Your task to perform on an android device: turn notification dots on Image 0: 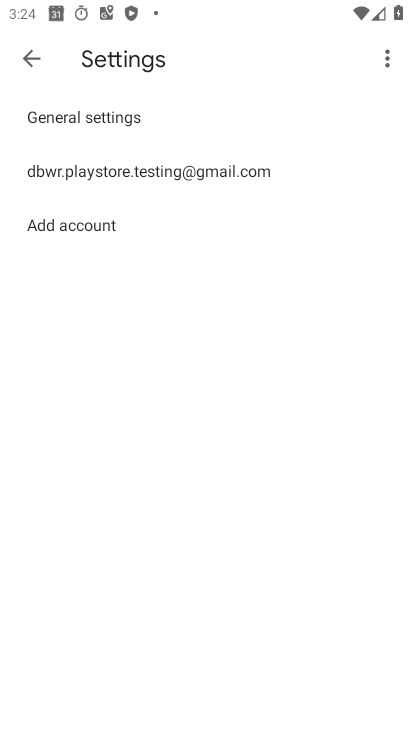
Step 0: press home button
Your task to perform on an android device: turn notification dots on Image 1: 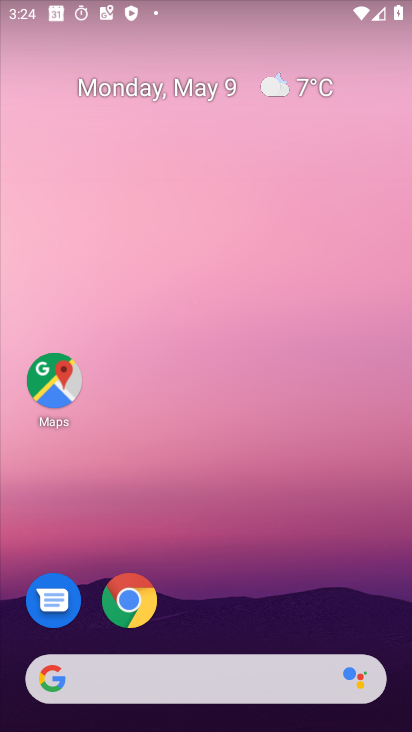
Step 1: drag from (322, 624) to (281, 157)
Your task to perform on an android device: turn notification dots on Image 2: 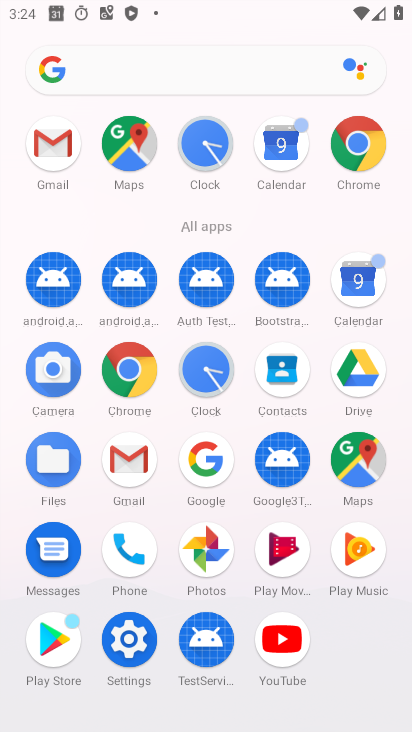
Step 2: click (138, 629)
Your task to perform on an android device: turn notification dots on Image 3: 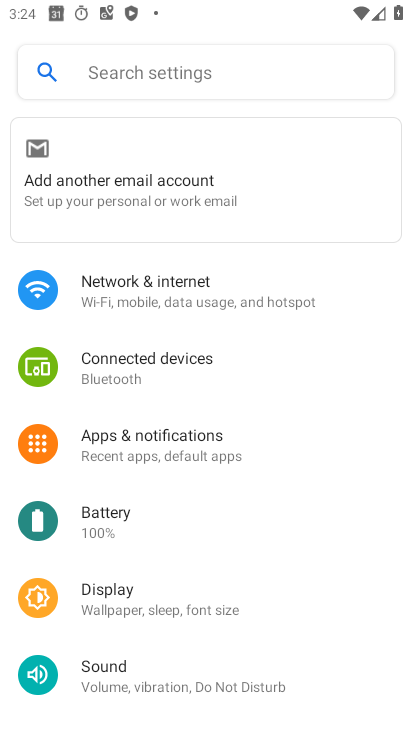
Step 3: drag from (197, 594) to (201, 209)
Your task to perform on an android device: turn notification dots on Image 4: 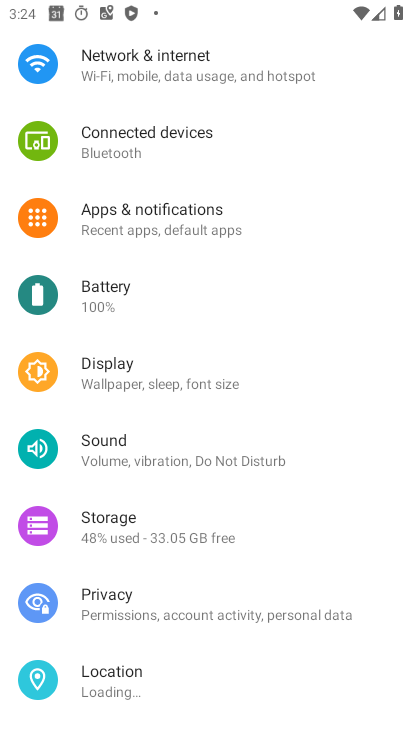
Step 4: click (198, 210)
Your task to perform on an android device: turn notification dots on Image 5: 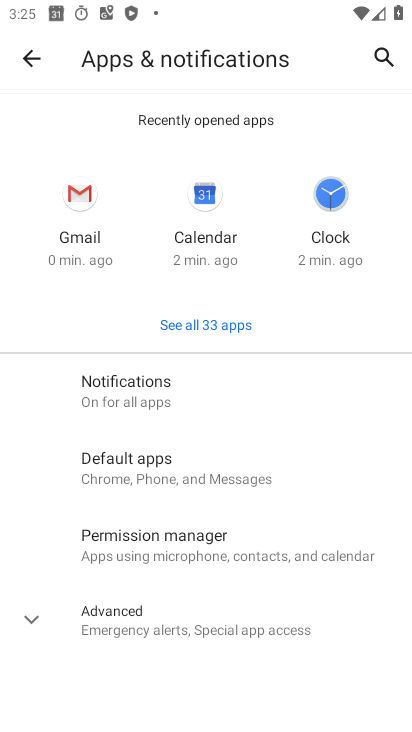
Step 5: drag from (241, 602) to (223, 199)
Your task to perform on an android device: turn notification dots on Image 6: 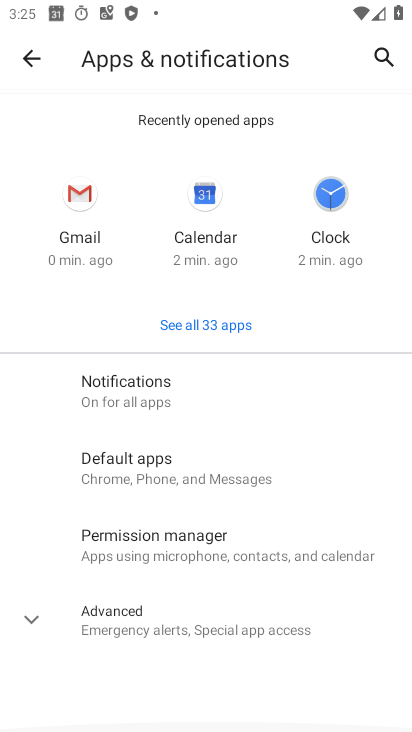
Step 6: click (167, 403)
Your task to perform on an android device: turn notification dots on Image 7: 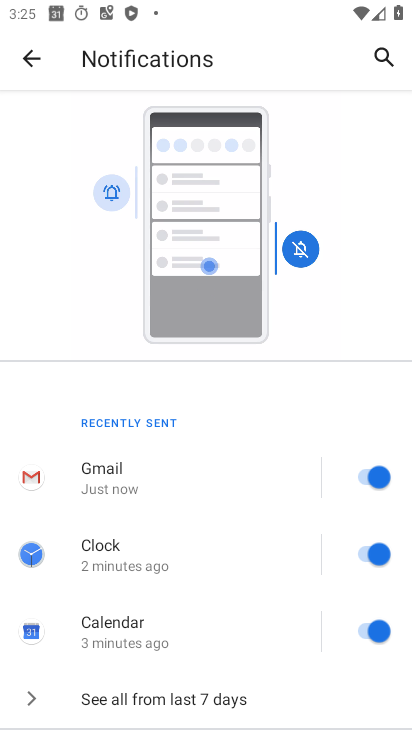
Step 7: drag from (216, 638) to (247, 128)
Your task to perform on an android device: turn notification dots on Image 8: 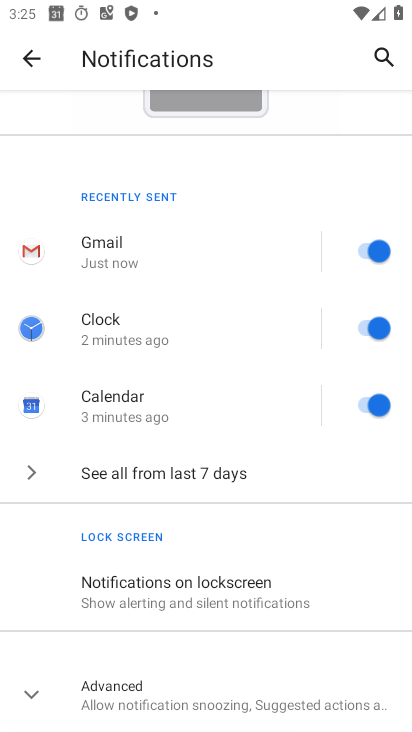
Step 8: click (167, 685)
Your task to perform on an android device: turn notification dots on Image 9: 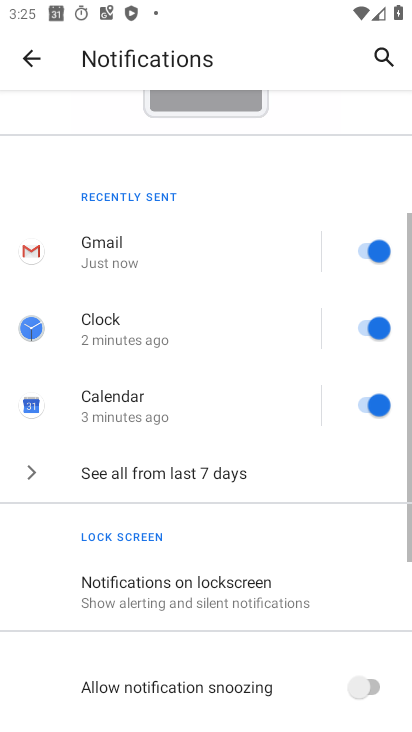
Step 9: task complete